Your task to perform on an android device: Search for "The Dispatcher" by John Scalzi on Goodreads Image 0: 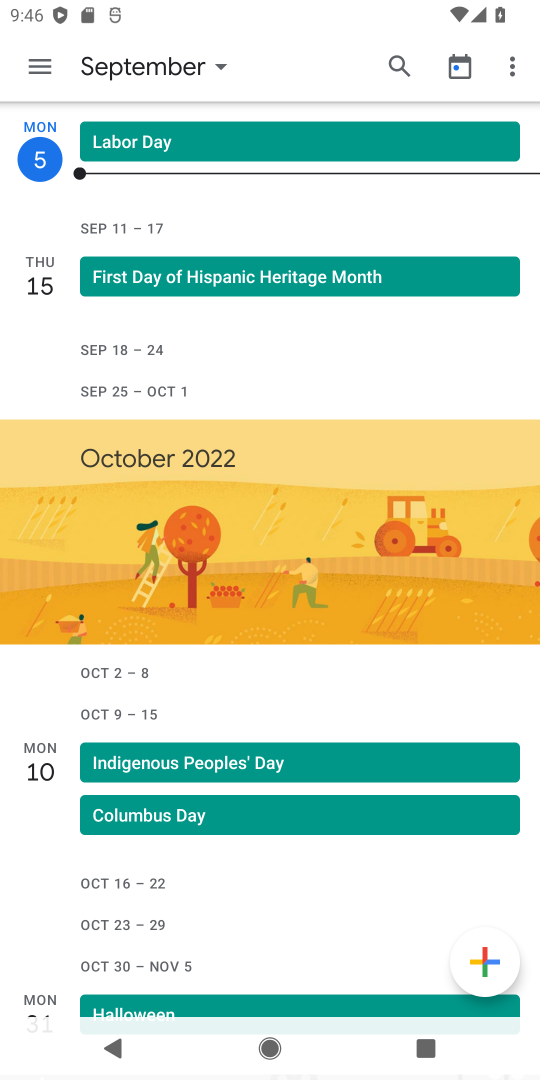
Step 0: press home button
Your task to perform on an android device: Search for "The Dispatcher" by John Scalzi on Goodreads Image 1: 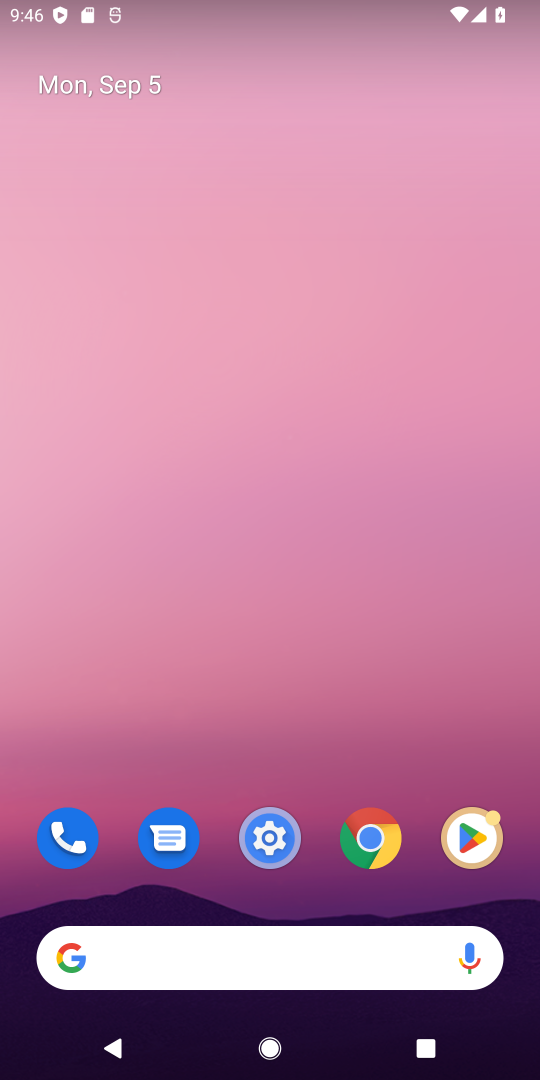
Step 1: click (361, 953)
Your task to perform on an android device: Search for "The Dispatcher" by John Scalzi on Goodreads Image 2: 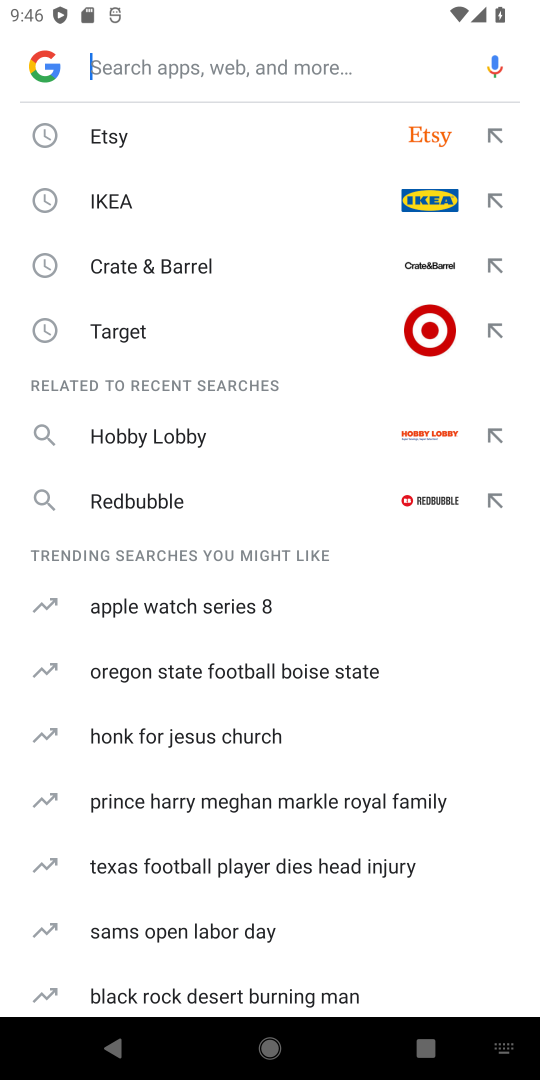
Step 2: type "Goodreads"
Your task to perform on an android device: Search for "The Dispatcher" by John Scalzi on Goodreads Image 3: 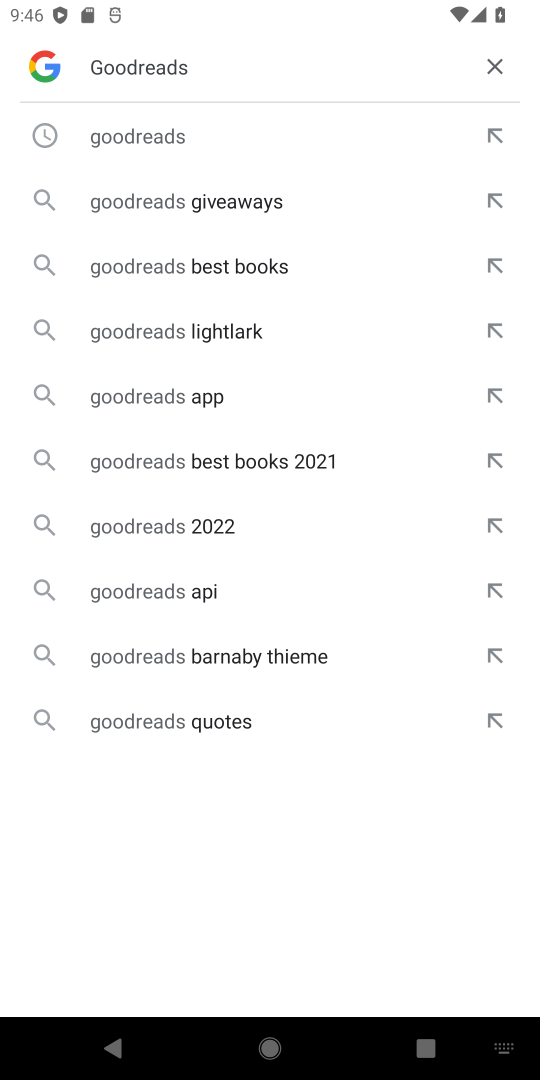
Step 3: click (138, 141)
Your task to perform on an android device: Search for "The Dispatcher" by John Scalzi on Goodreads Image 4: 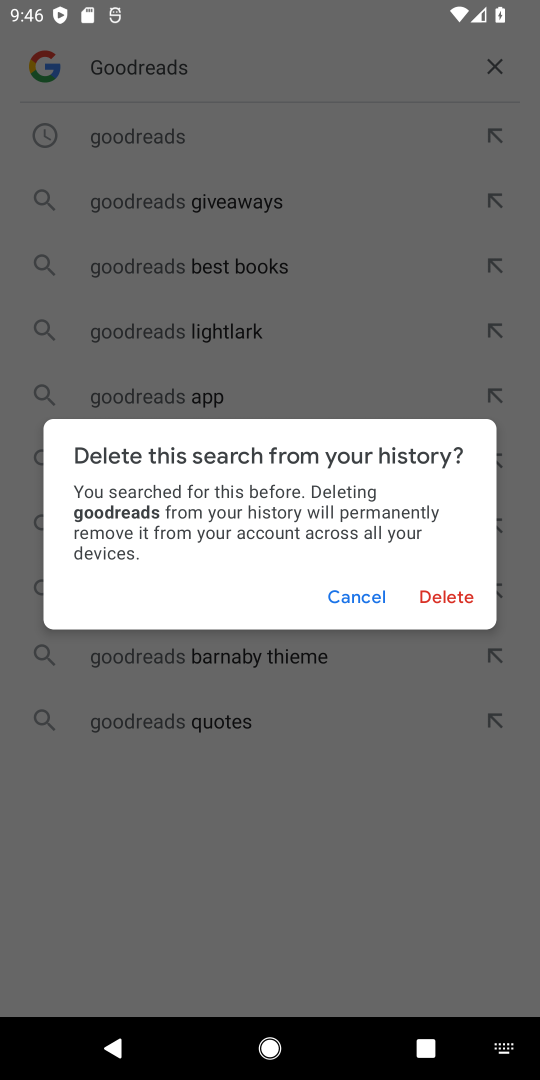
Step 4: click (369, 587)
Your task to perform on an android device: Search for "The Dispatcher" by John Scalzi on Goodreads Image 5: 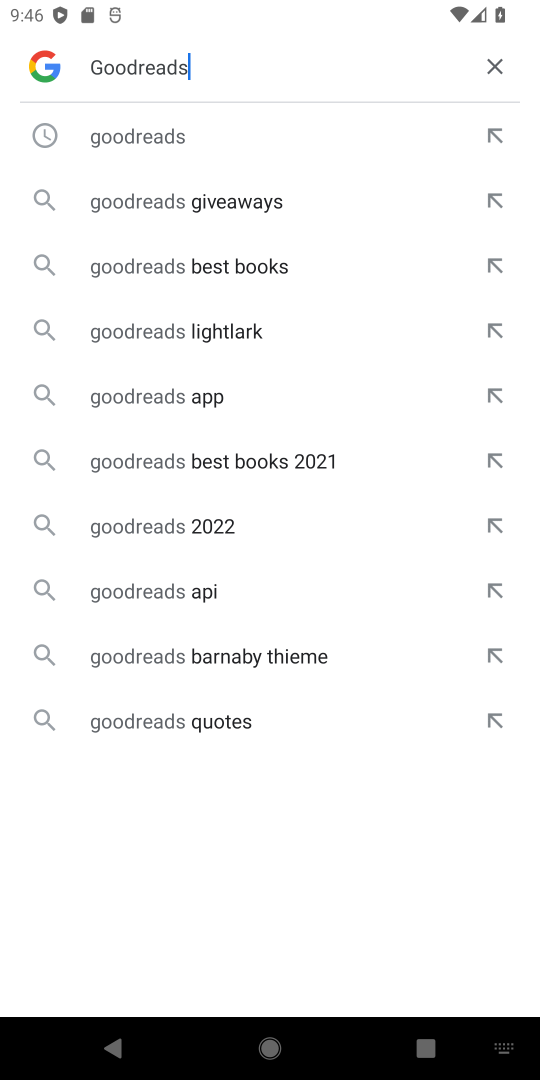
Step 5: click (247, 140)
Your task to perform on an android device: Search for "The Dispatcher" by John Scalzi on Goodreads Image 6: 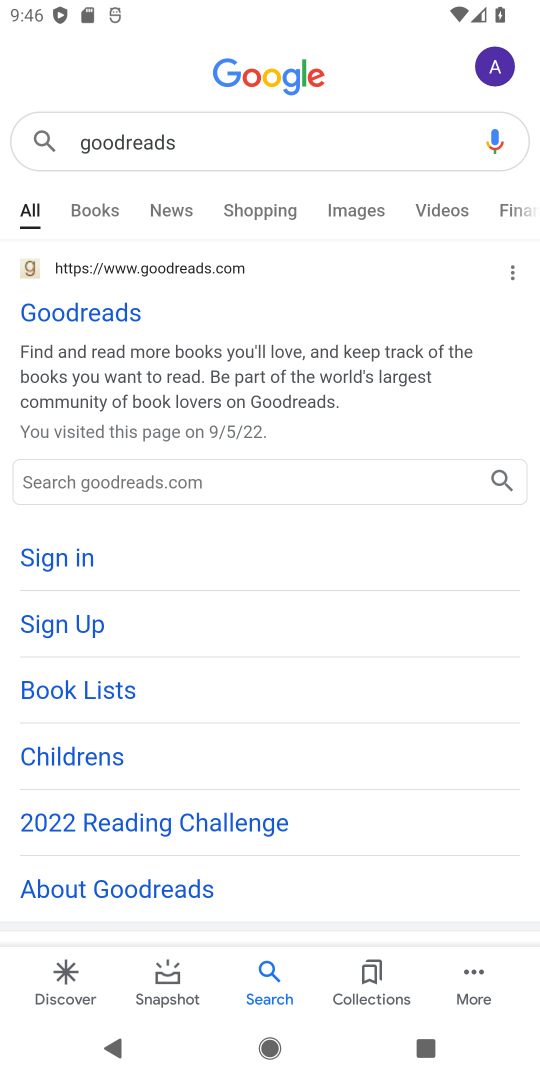
Step 6: click (81, 313)
Your task to perform on an android device: Search for "The Dispatcher" by John Scalzi on Goodreads Image 7: 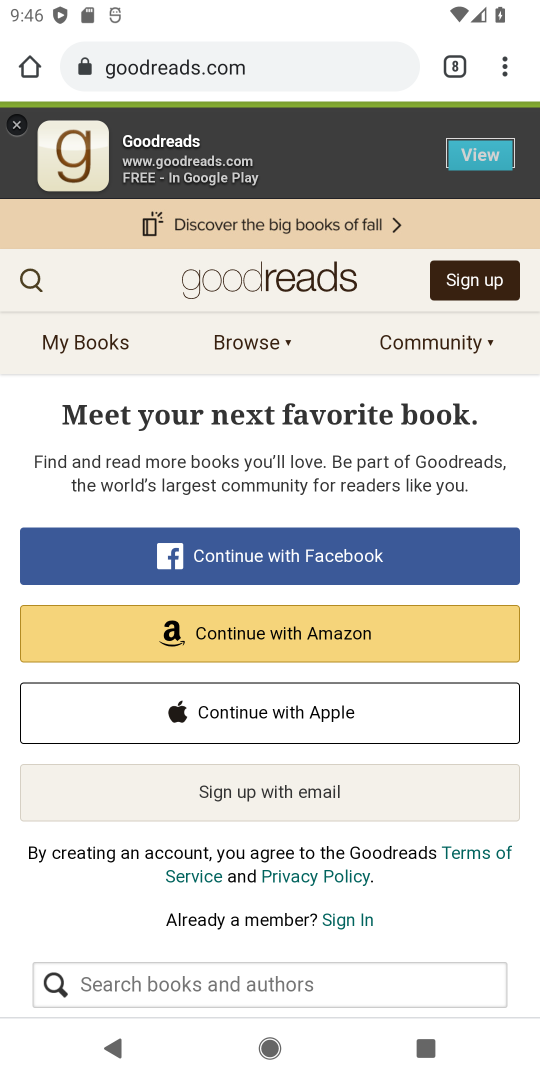
Step 7: click (31, 260)
Your task to perform on an android device: Search for "The Dispatcher" by John Scalzi on Goodreads Image 8: 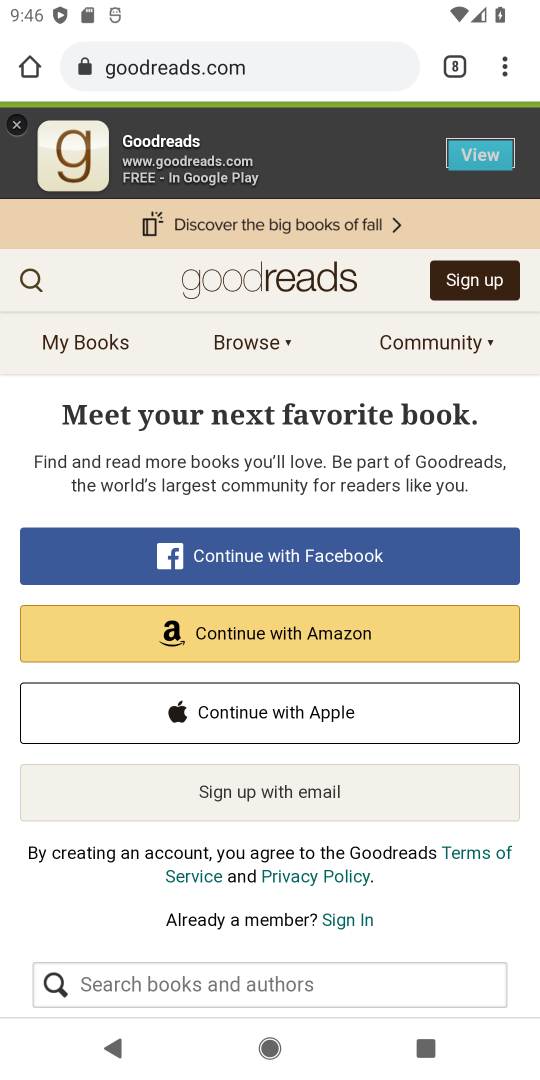
Step 8: click (46, 279)
Your task to perform on an android device: Search for "The Dispatcher" by John Scalzi on Goodreads Image 9: 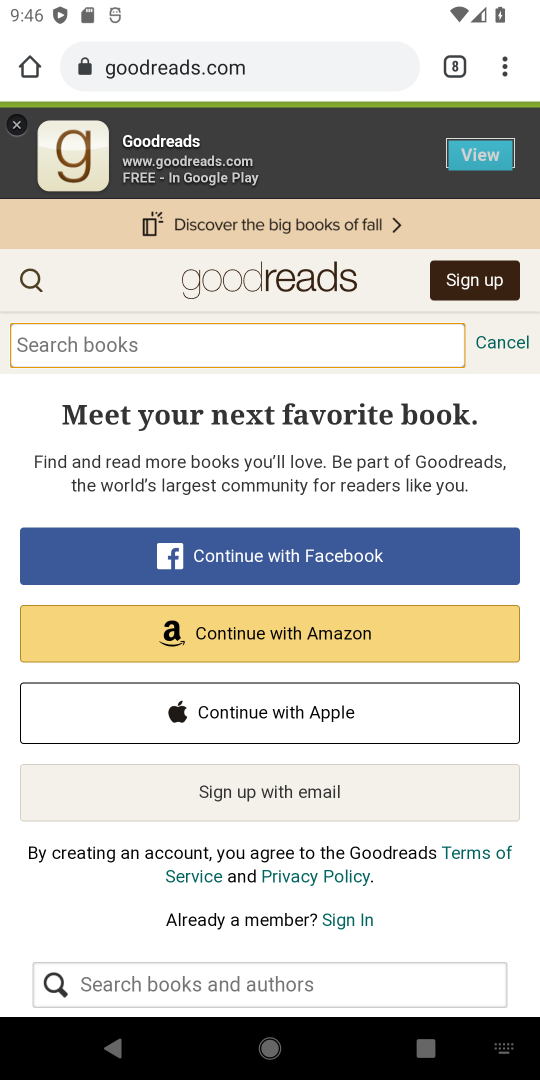
Step 9: click (95, 342)
Your task to perform on an android device: Search for "The Dispatcher" by John Scalzi on Goodreads Image 10: 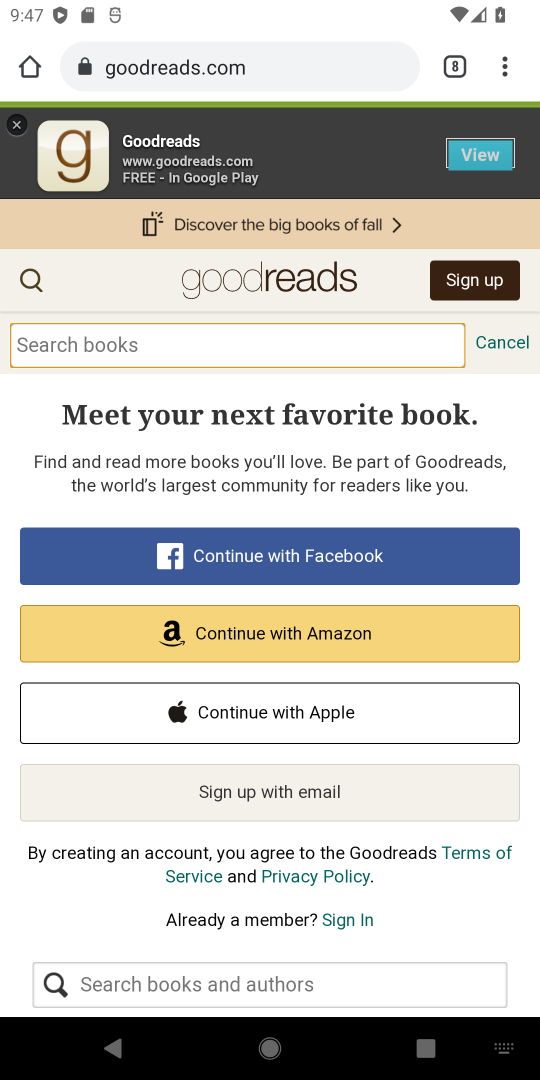
Step 10: type "The Dispatcher"
Your task to perform on an android device: Search for "The Dispatcher" by John Scalzi on Goodreads Image 11: 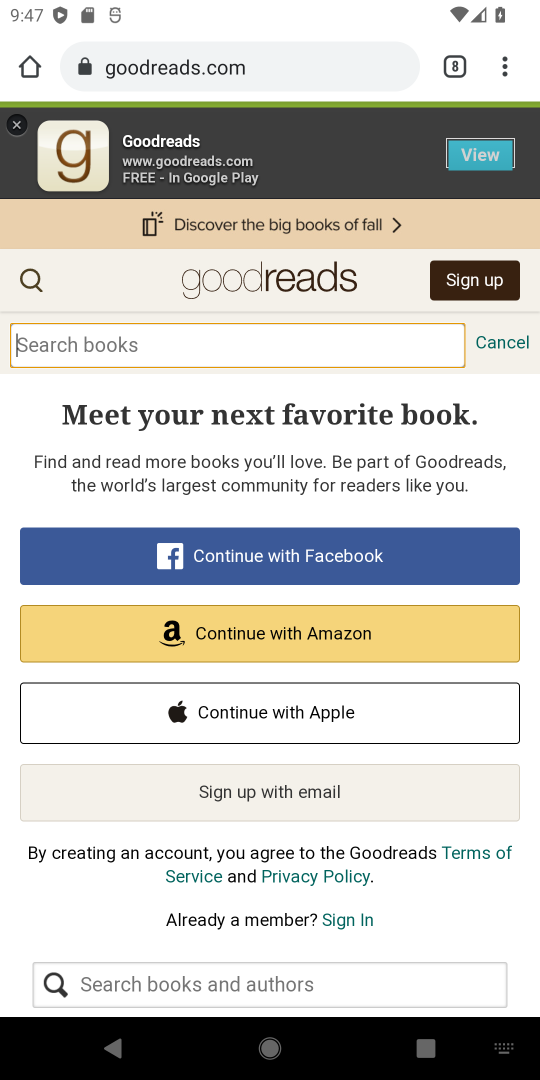
Step 11: type ""
Your task to perform on an android device: Search for "The Dispatcher" by John Scalzi on Goodreads Image 12: 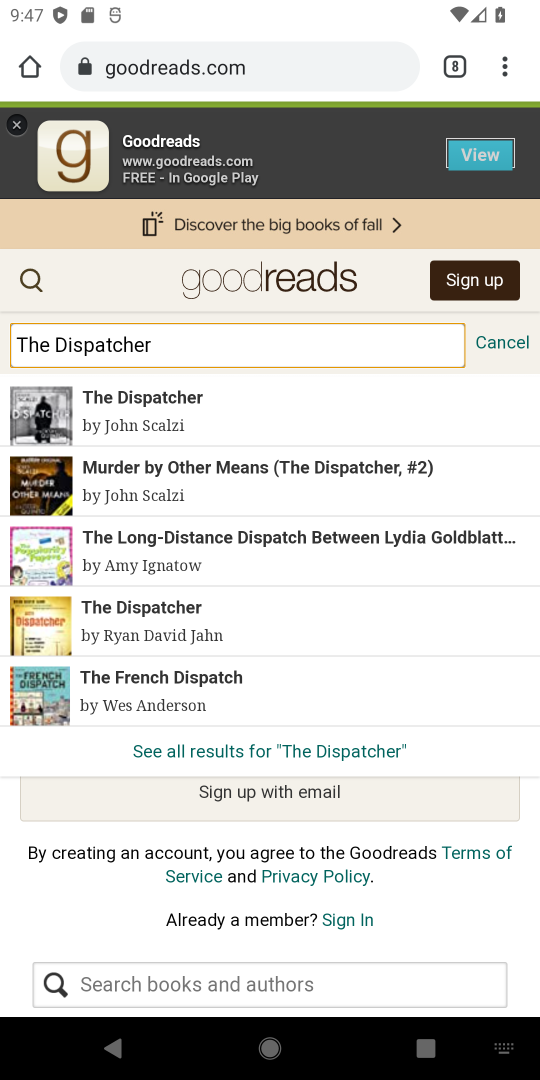
Step 12: click (230, 401)
Your task to perform on an android device: Search for "The Dispatcher" by John Scalzi on Goodreads Image 13: 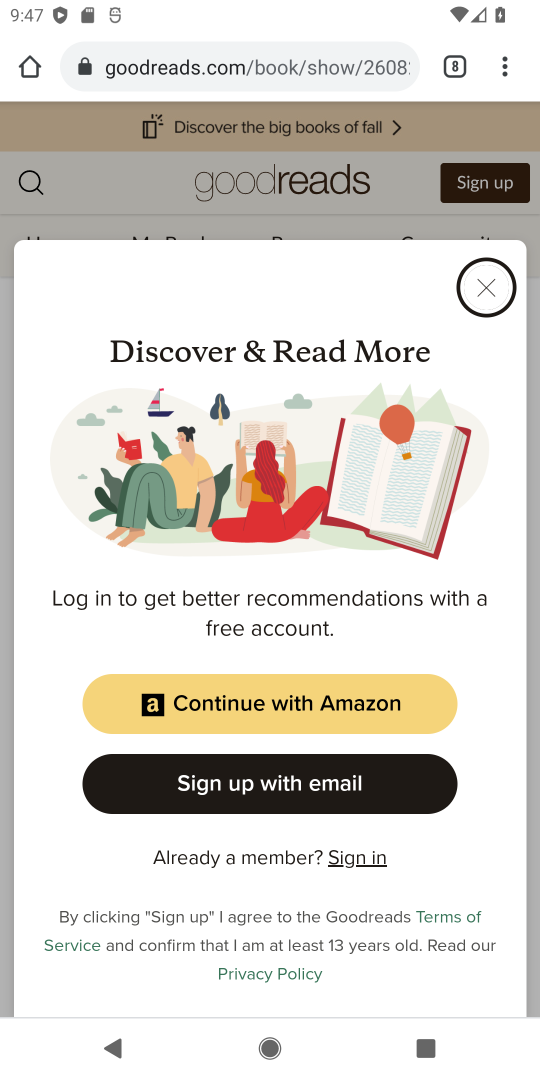
Step 13: task complete